Your task to perform on an android device: remove spam from my inbox in the gmail app Image 0: 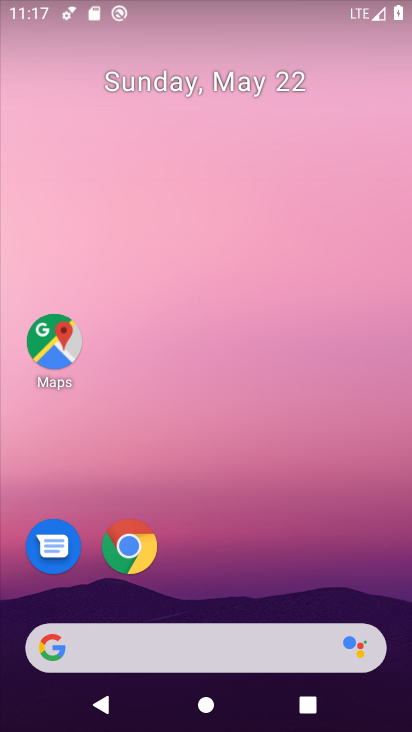
Step 0: drag from (304, 598) to (376, 5)
Your task to perform on an android device: remove spam from my inbox in the gmail app Image 1: 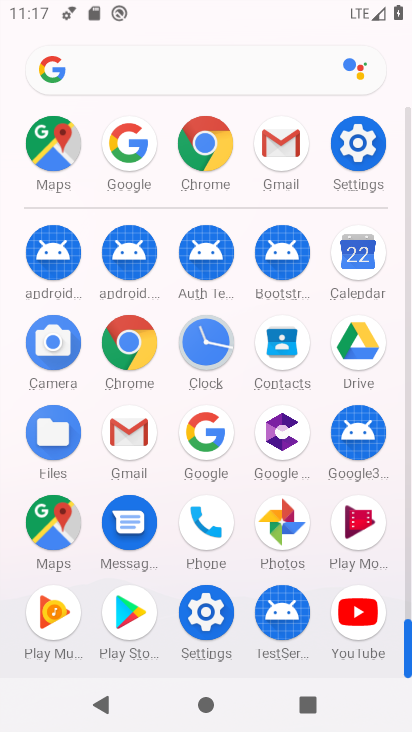
Step 1: drag from (311, 556) to (311, 356)
Your task to perform on an android device: remove spam from my inbox in the gmail app Image 2: 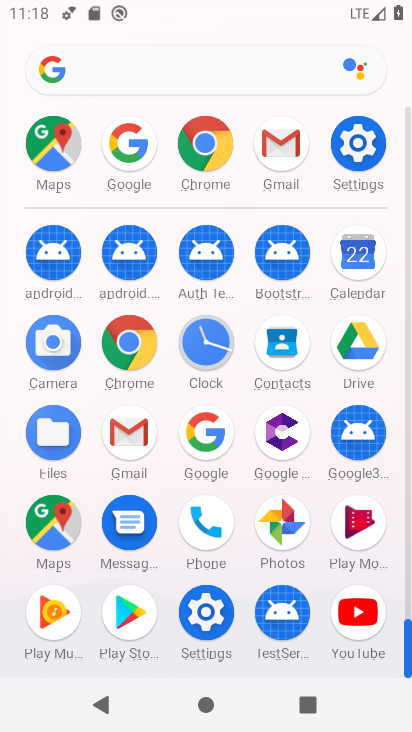
Step 2: click (130, 446)
Your task to perform on an android device: remove spam from my inbox in the gmail app Image 3: 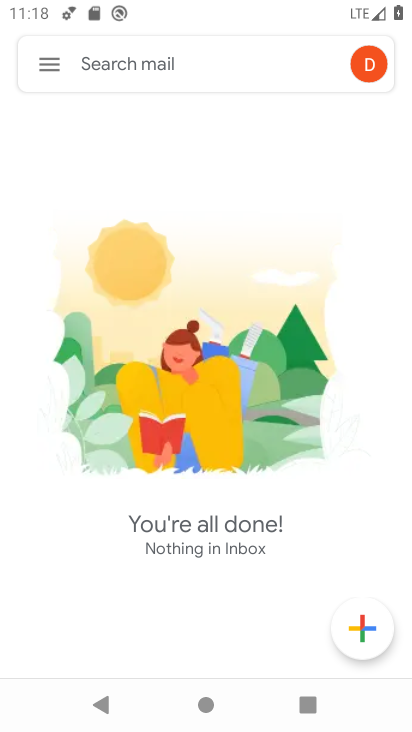
Step 3: click (51, 71)
Your task to perform on an android device: remove spam from my inbox in the gmail app Image 4: 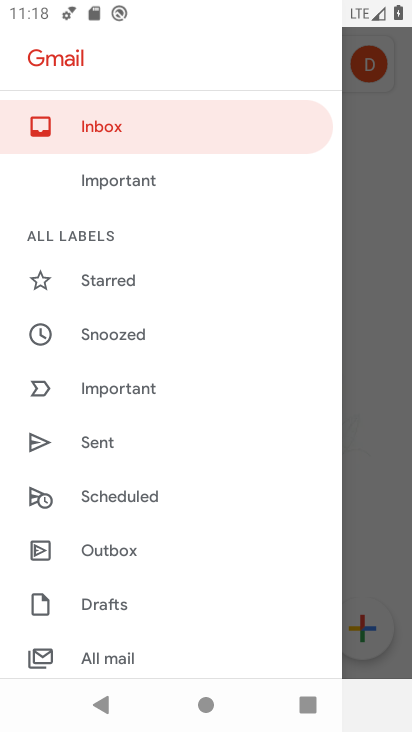
Step 4: task complete